Your task to perform on an android device: Go to Reddit.com Image 0: 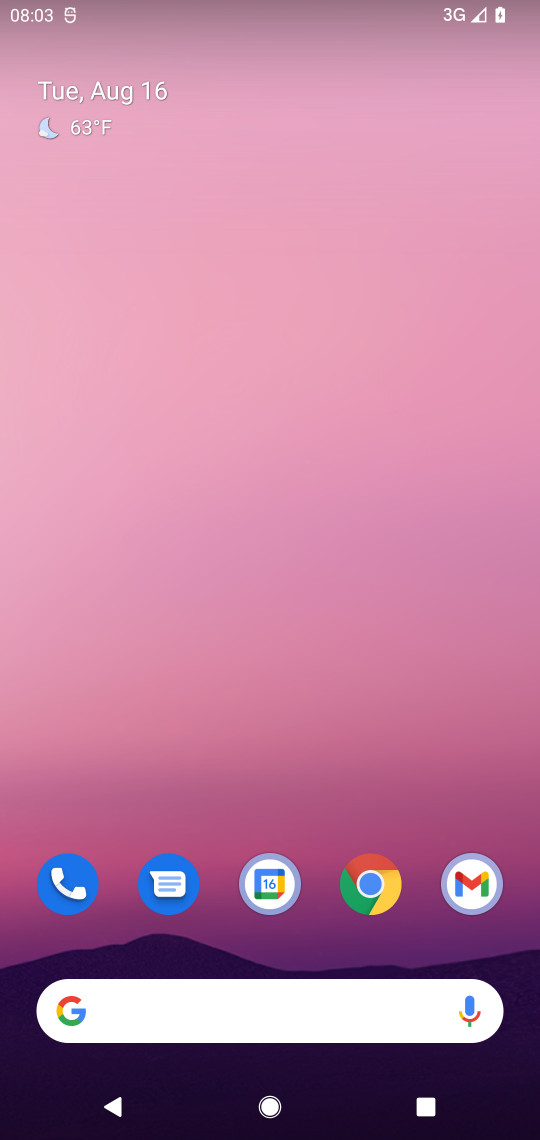
Step 0: click (76, 1013)
Your task to perform on an android device: Go to Reddit.com Image 1: 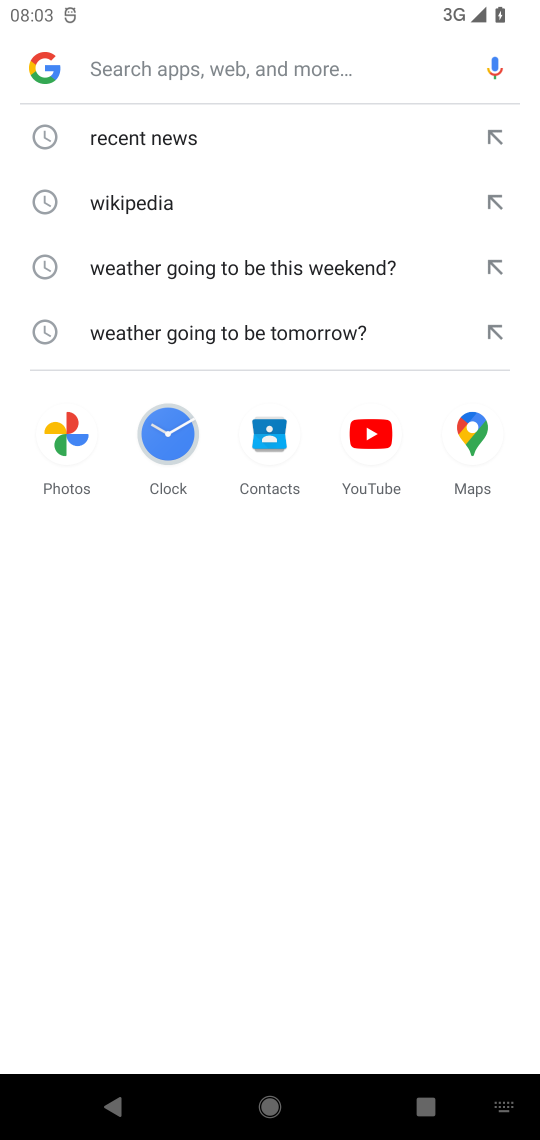
Step 1: type "Reddit.com"
Your task to perform on an android device: Go to Reddit.com Image 2: 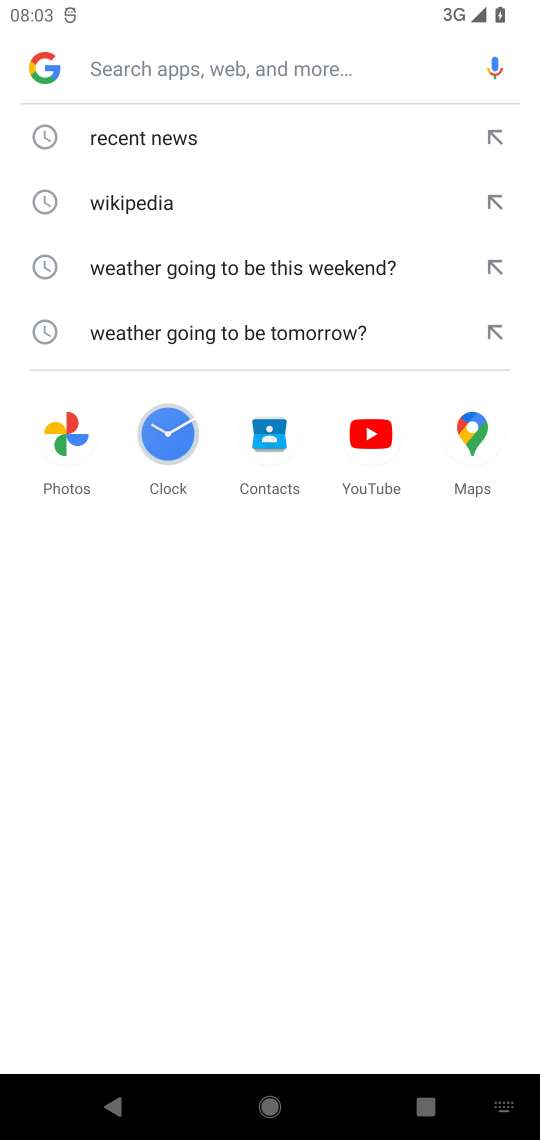
Step 2: click (177, 74)
Your task to perform on an android device: Go to Reddit.com Image 3: 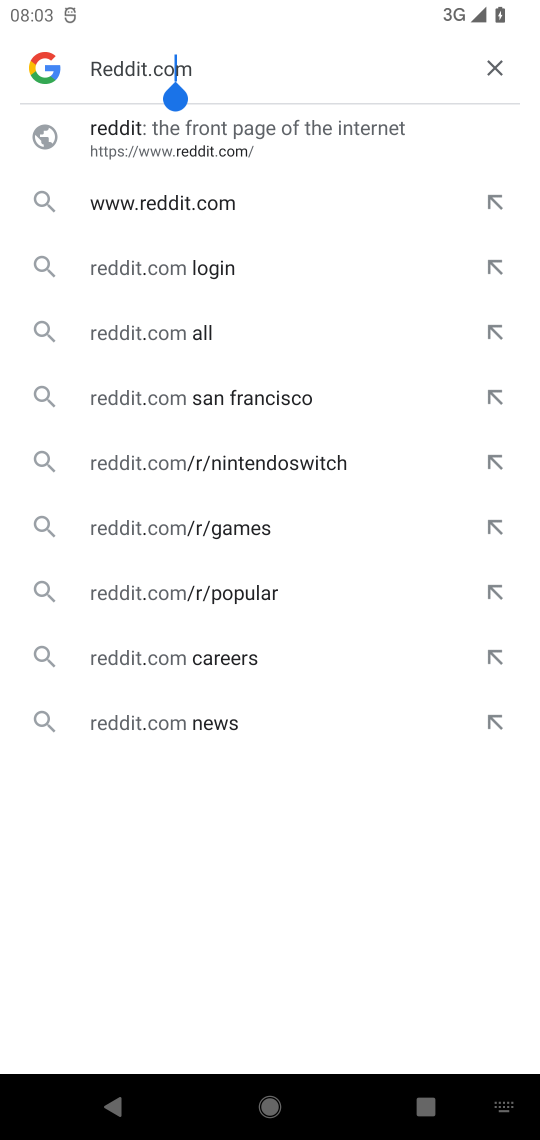
Step 3: click (269, 151)
Your task to perform on an android device: Go to Reddit.com Image 4: 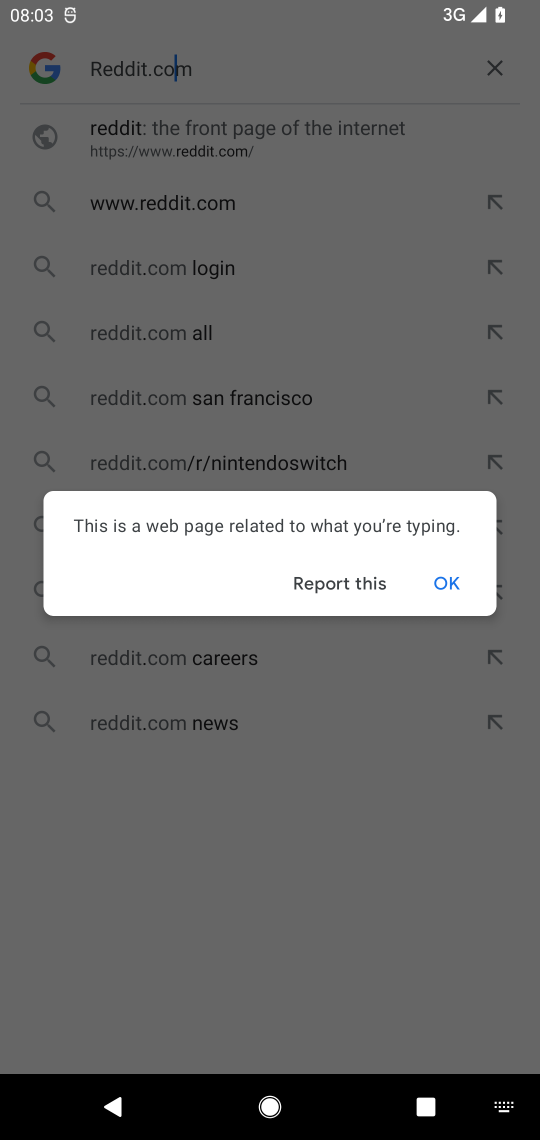
Step 4: click (444, 584)
Your task to perform on an android device: Go to Reddit.com Image 5: 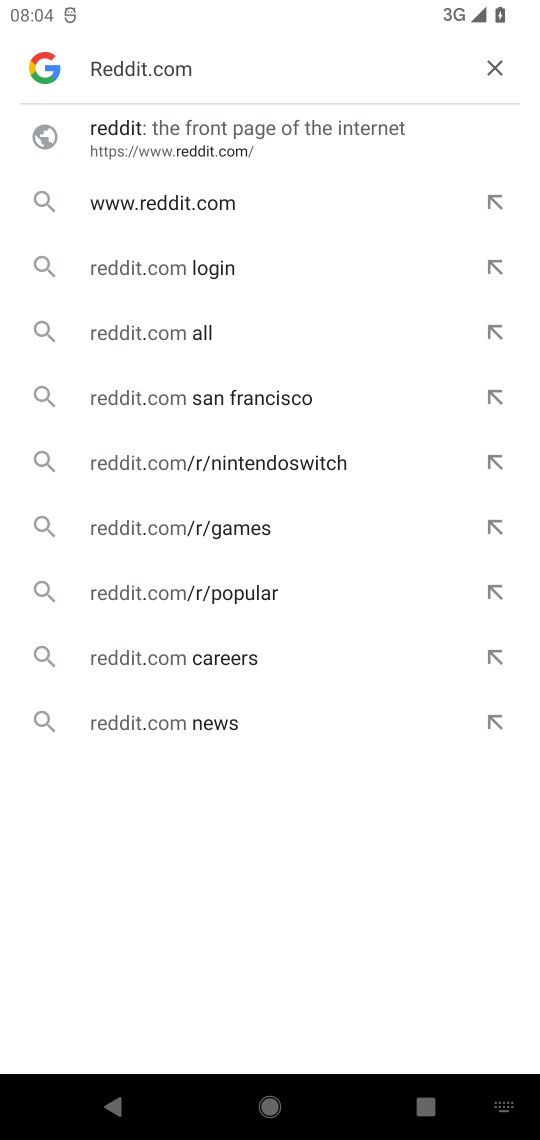
Step 5: click (180, 205)
Your task to perform on an android device: Go to Reddit.com Image 6: 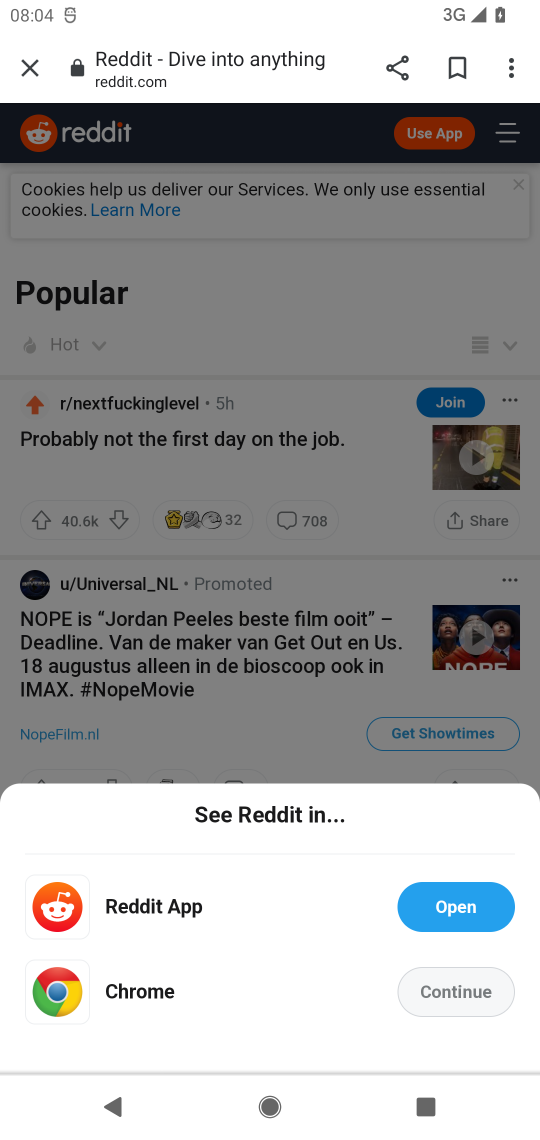
Step 6: task complete